Your task to perform on an android device: Search for Italian restaurants on Maps Image 0: 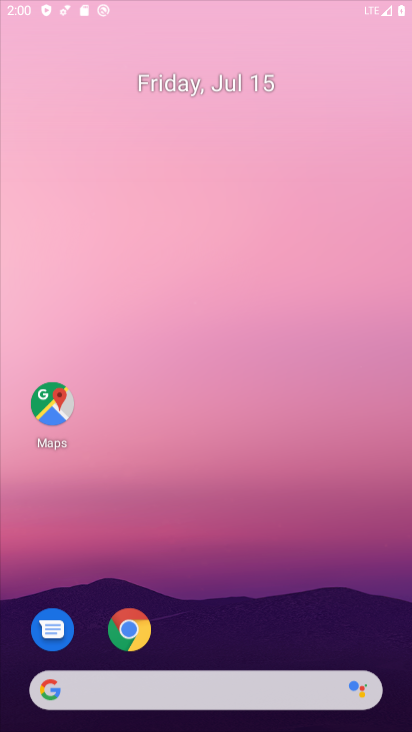
Step 0: press home button
Your task to perform on an android device: Search for Italian restaurants on Maps Image 1: 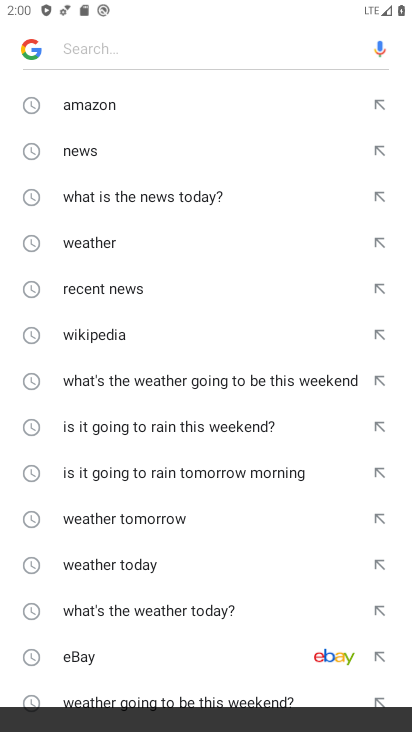
Step 1: drag from (274, 623) to (241, 53)
Your task to perform on an android device: Search for Italian restaurants on Maps Image 2: 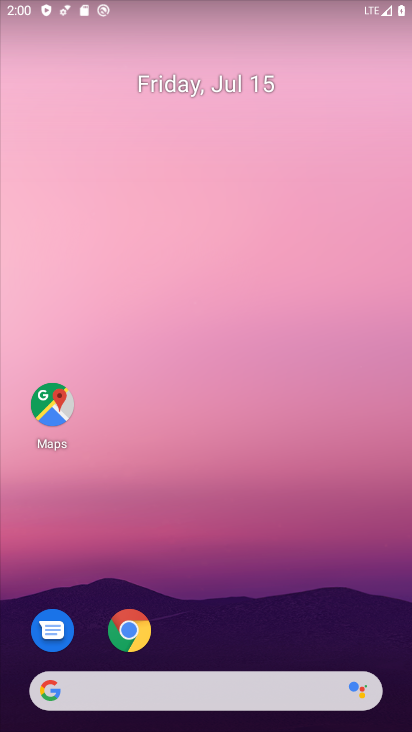
Step 2: click (39, 401)
Your task to perform on an android device: Search for Italian restaurants on Maps Image 3: 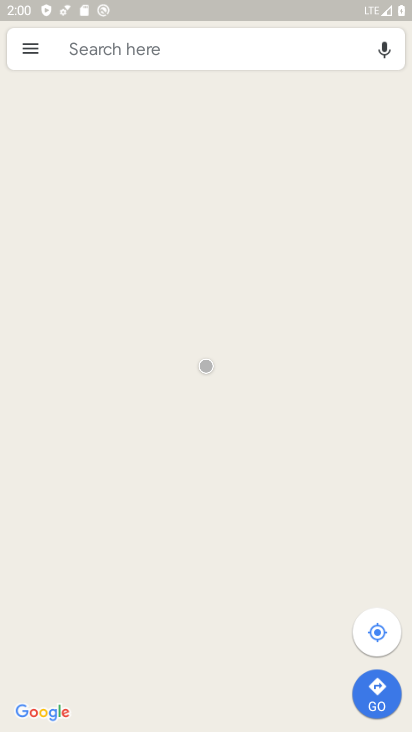
Step 3: click (71, 50)
Your task to perform on an android device: Search for Italian restaurants on Maps Image 4: 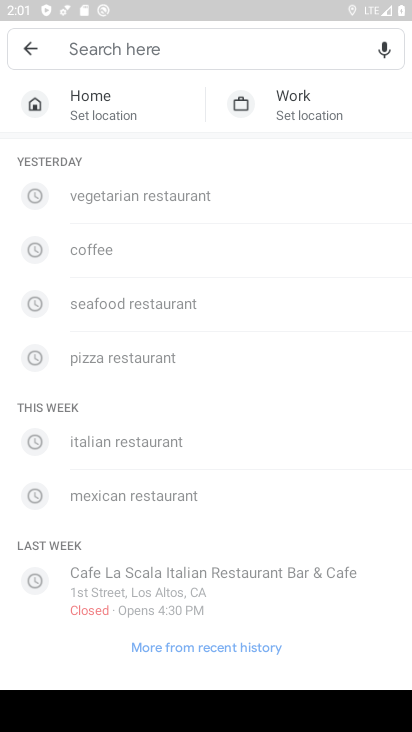
Step 4: type "Italian restaurants"
Your task to perform on an android device: Search for Italian restaurants on Maps Image 5: 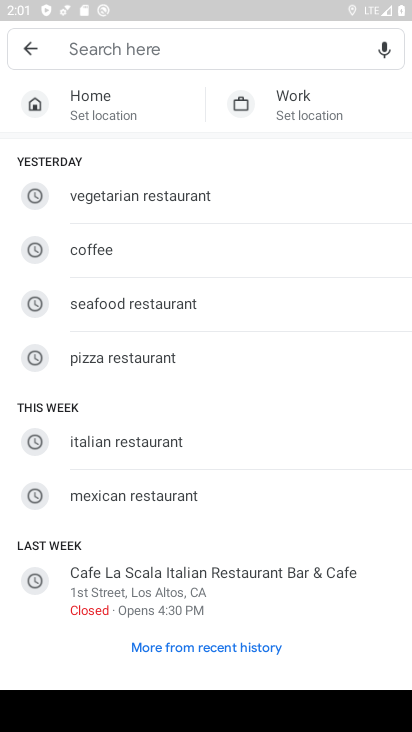
Step 5: click (81, 49)
Your task to perform on an android device: Search for Italian restaurants on Maps Image 6: 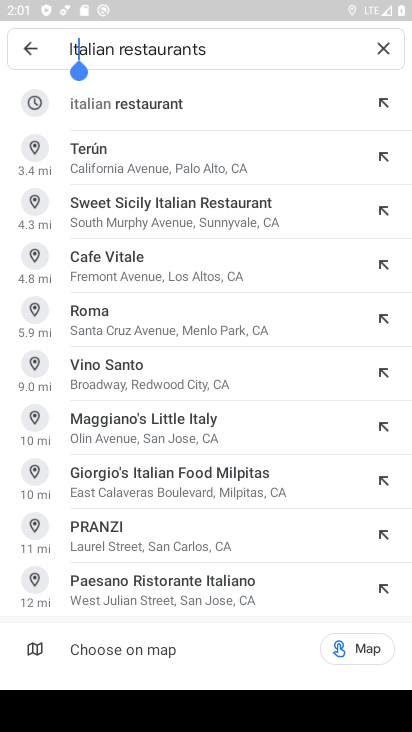
Step 6: click (93, 106)
Your task to perform on an android device: Search for Italian restaurants on Maps Image 7: 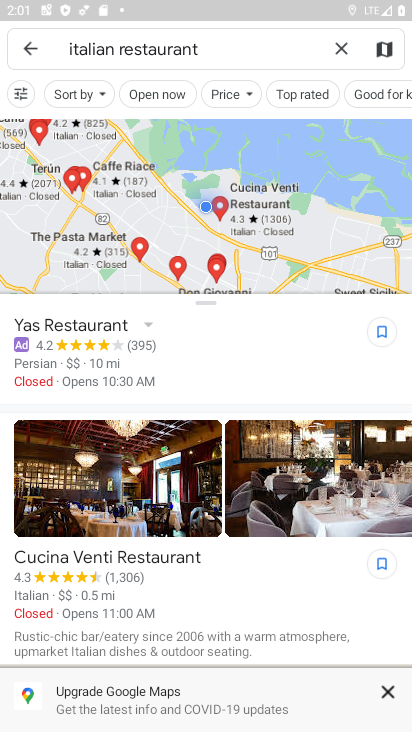
Step 7: task complete